Your task to perform on an android device: check google app version Image 0: 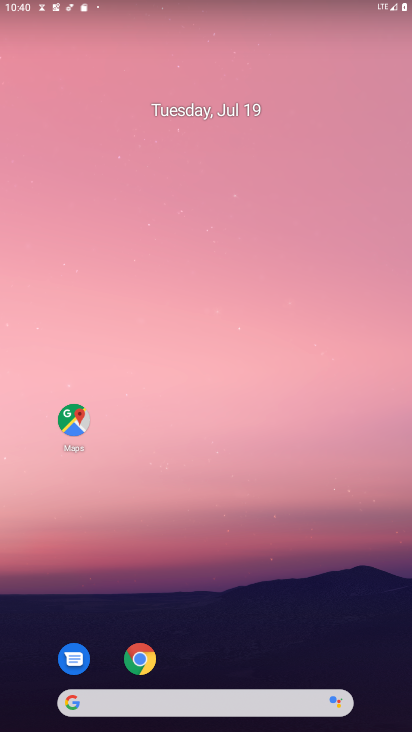
Step 0: click (252, 222)
Your task to perform on an android device: check google app version Image 1: 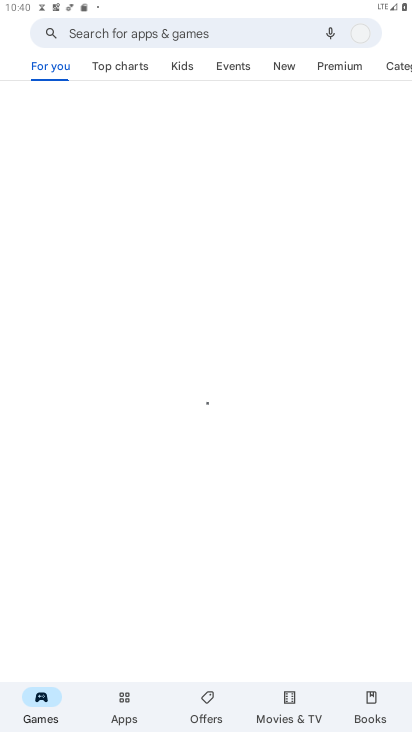
Step 1: press home button
Your task to perform on an android device: check google app version Image 2: 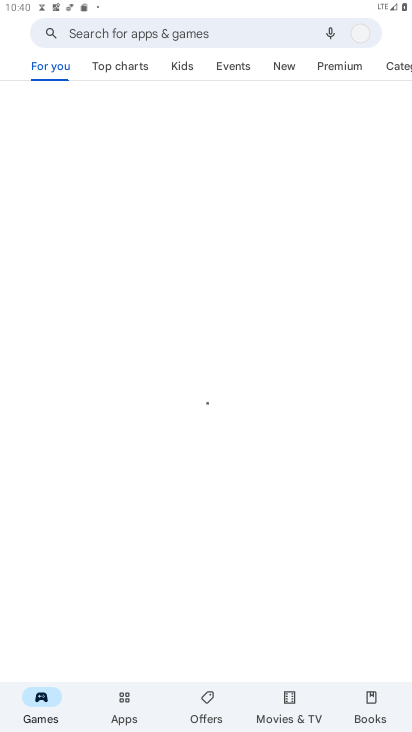
Step 2: press home button
Your task to perform on an android device: check google app version Image 3: 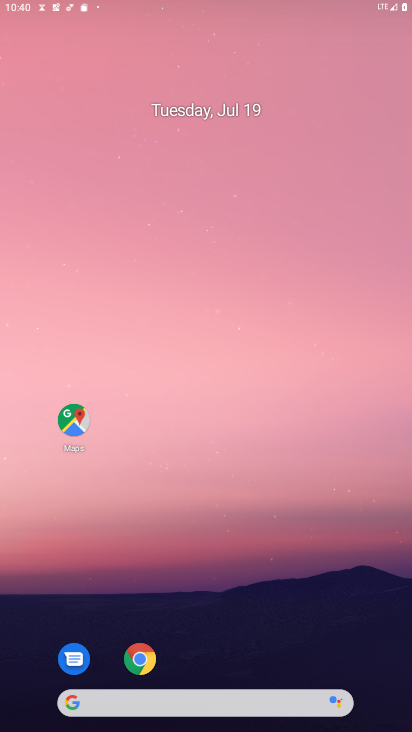
Step 3: drag from (220, 602) to (349, 157)
Your task to perform on an android device: check google app version Image 4: 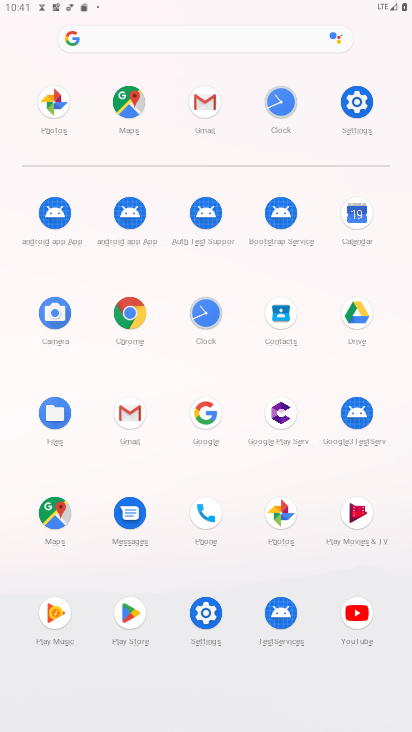
Step 4: click (200, 404)
Your task to perform on an android device: check google app version Image 5: 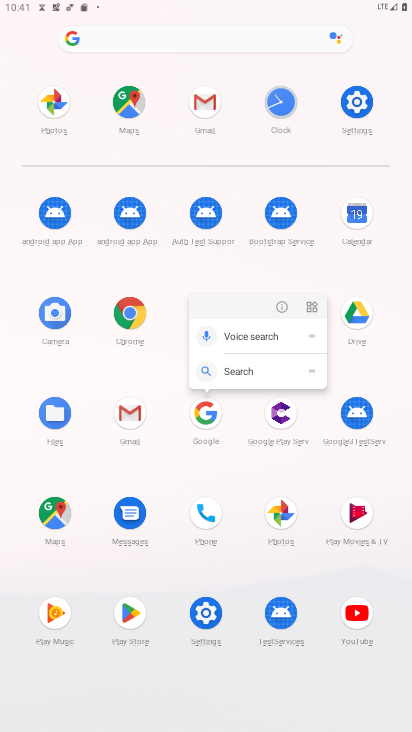
Step 5: click (280, 304)
Your task to perform on an android device: check google app version Image 6: 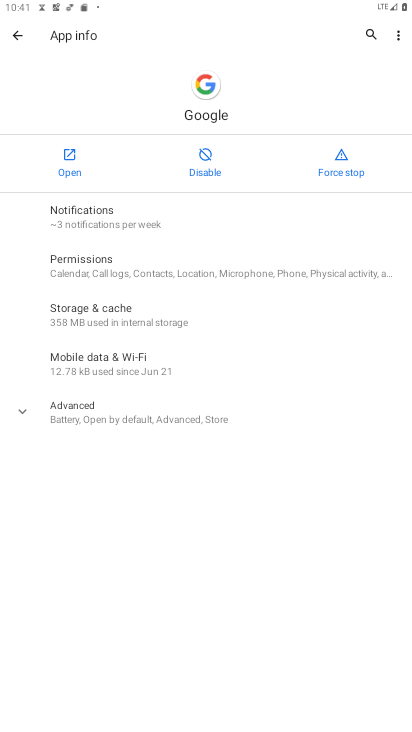
Step 6: click (64, 169)
Your task to perform on an android device: check google app version Image 7: 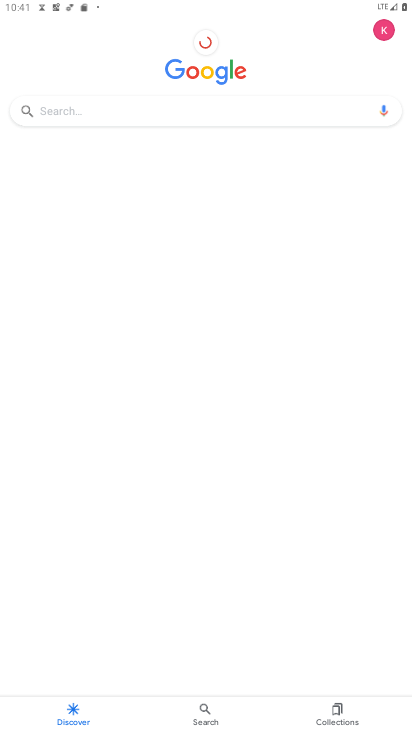
Step 7: click (376, 41)
Your task to perform on an android device: check google app version Image 8: 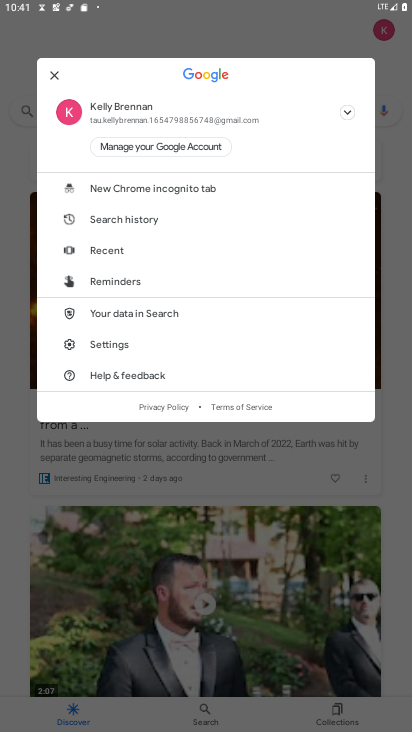
Step 8: click (114, 346)
Your task to perform on an android device: check google app version Image 9: 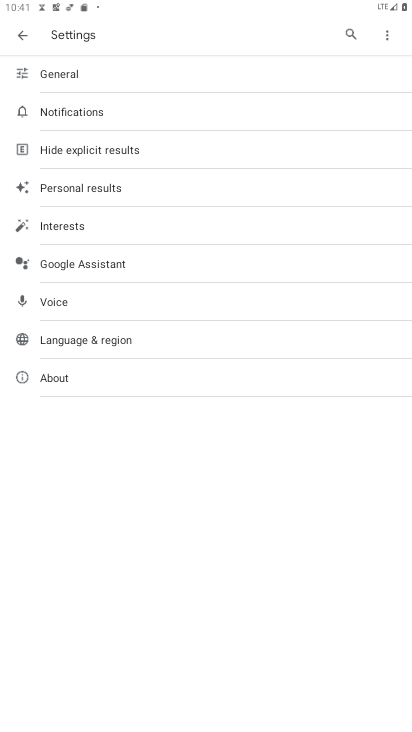
Step 9: click (110, 376)
Your task to perform on an android device: check google app version Image 10: 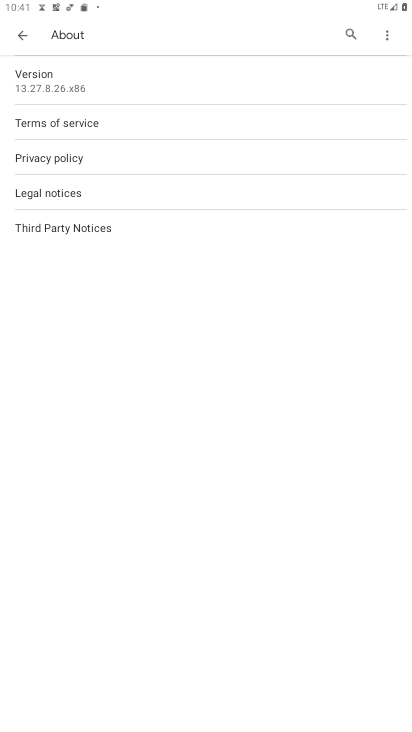
Step 10: click (136, 76)
Your task to perform on an android device: check google app version Image 11: 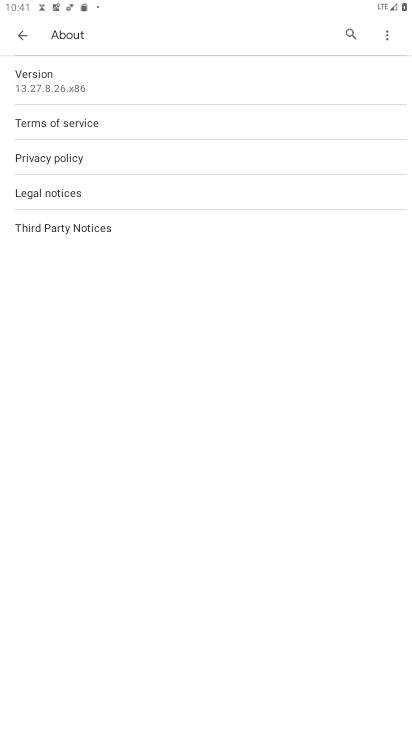
Step 11: click (137, 79)
Your task to perform on an android device: check google app version Image 12: 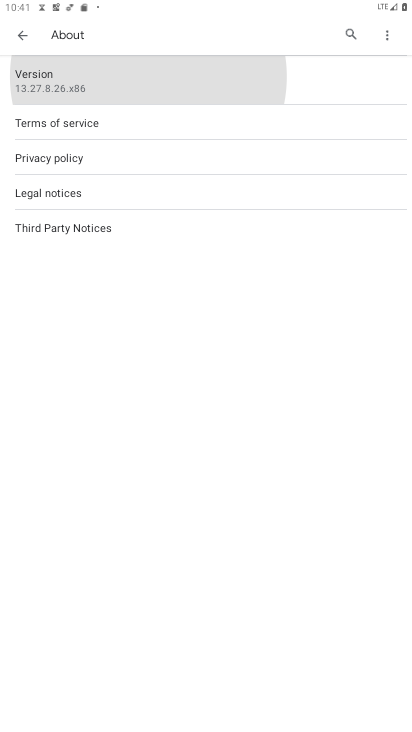
Step 12: click (137, 79)
Your task to perform on an android device: check google app version Image 13: 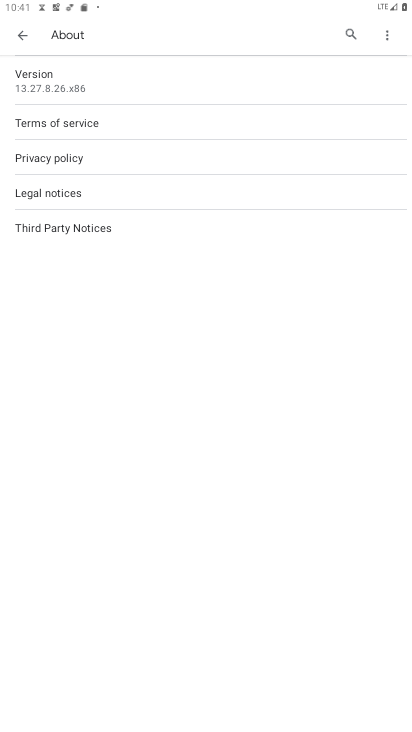
Step 13: click (180, 78)
Your task to perform on an android device: check google app version Image 14: 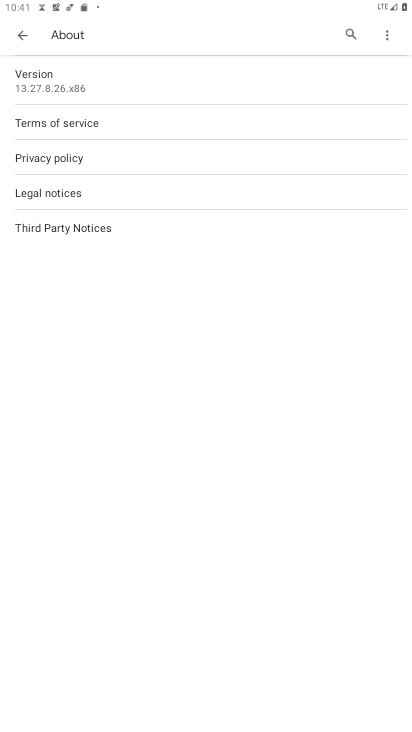
Step 14: task complete